Your task to perform on an android device: change notifications settings Image 0: 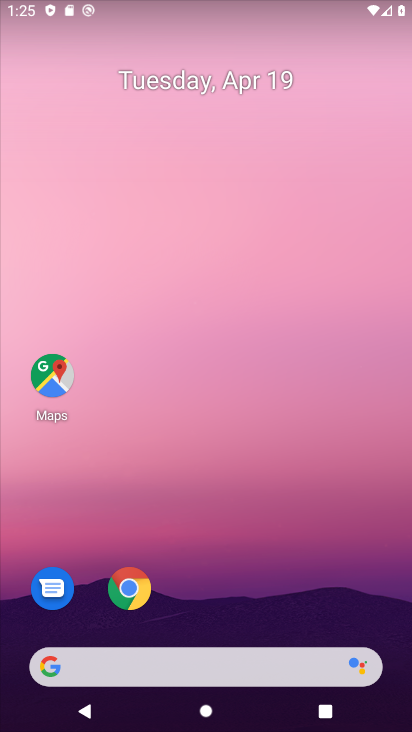
Step 0: drag from (218, 546) to (251, 67)
Your task to perform on an android device: change notifications settings Image 1: 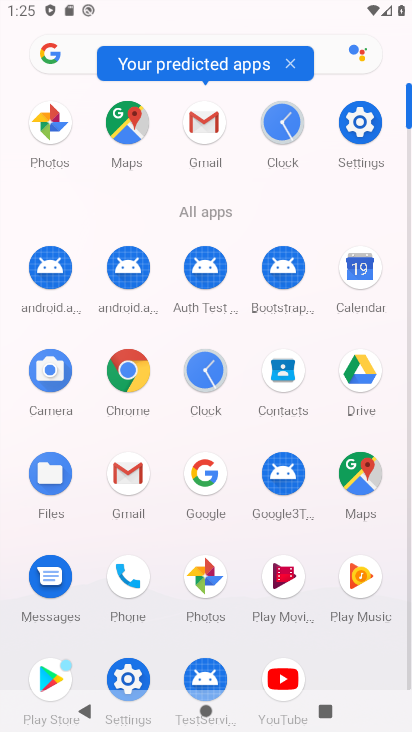
Step 1: click (356, 122)
Your task to perform on an android device: change notifications settings Image 2: 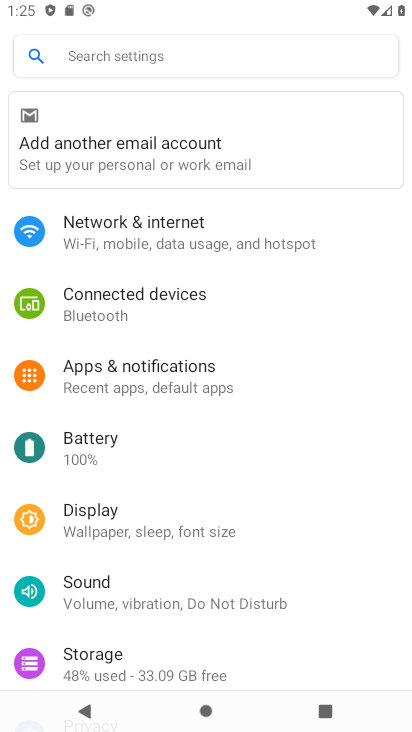
Step 2: click (183, 374)
Your task to perform on an android device: change notifications settings Image 3: 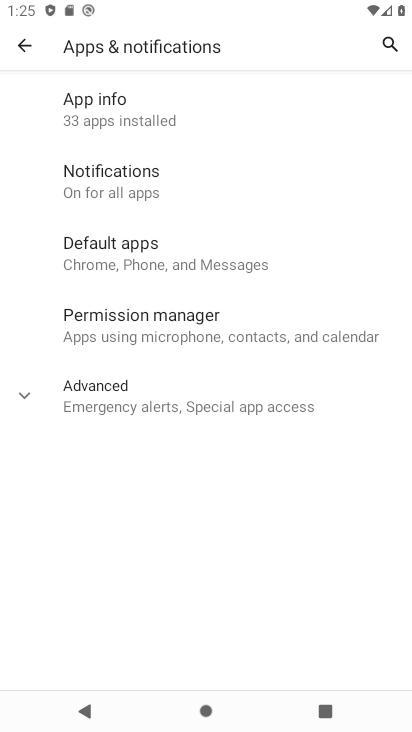
Step 3: click (164, 174)
Your task to perform on an android device: change notifications settings Image 4: 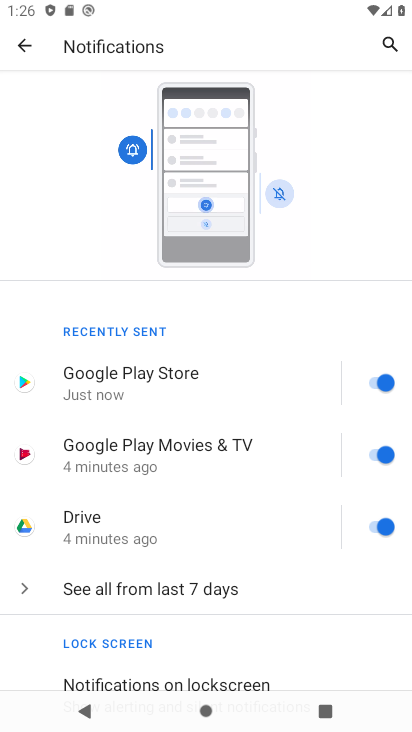
Step 4: drag from (179, 646) to (201, 330)
Your task to perform on an android device: change notifications settings Image 5: 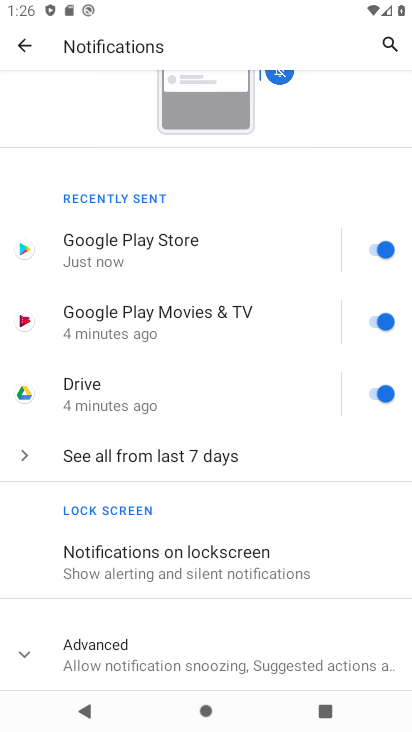
Step 5: drag from (216, 222) to (265, 471)
Your task to perform on an android device: change notifications settings Image 6: 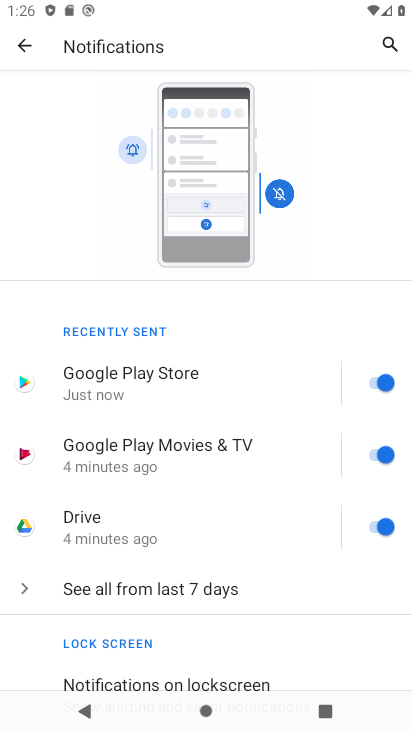
Step 6: click (80, 709)
Your task to perform on an android device: change notifications settings Image 7: 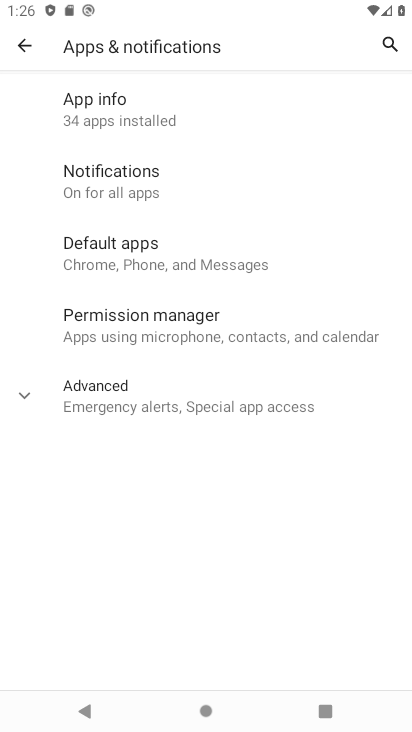
Step 7: click (136, 191)
Your task to perform on an android device: change notifications settings Image 8: 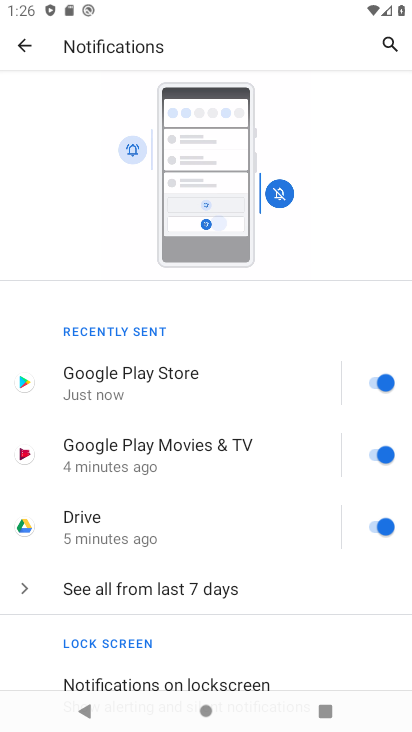
Step 8: click (380, 385)
Your task to perform on an android device: change notifications settings Image 9: 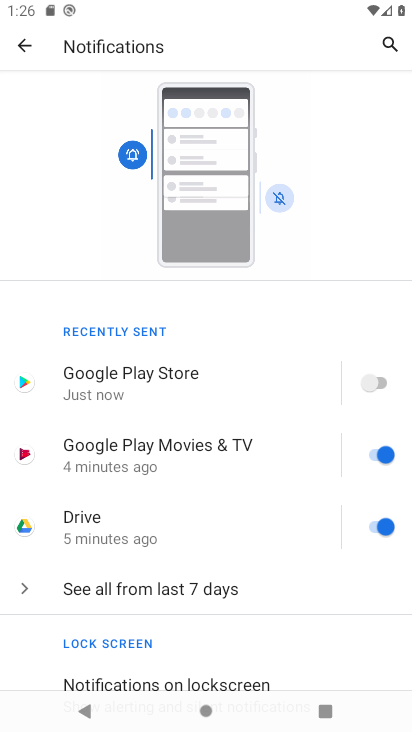
Step 9: click (380, 385)
Your task to perform on an android device: change notifications settings Image 10: 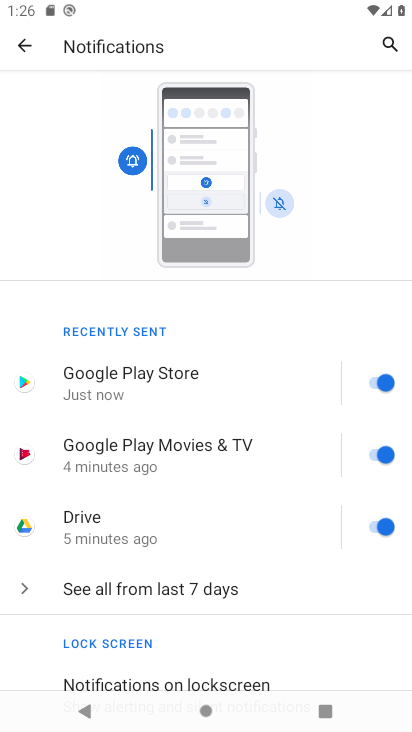
Step 10: task complete